Your task to perform on an android device: turn on location history Image 0: 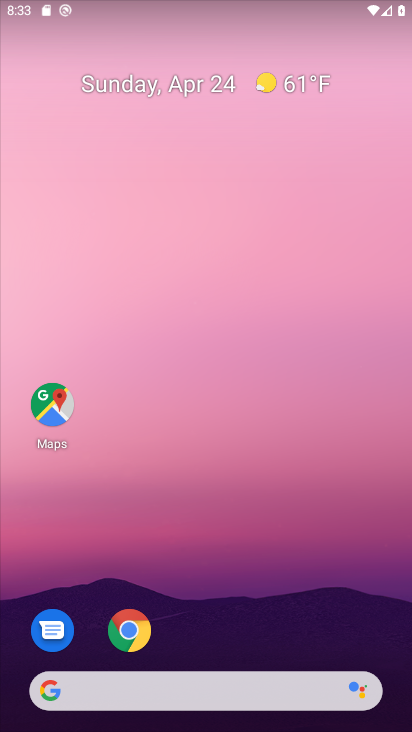
Step 0: drag from (348, 603) to (350, 98)
Your task to perform on an android device: turn on location history Image 1: 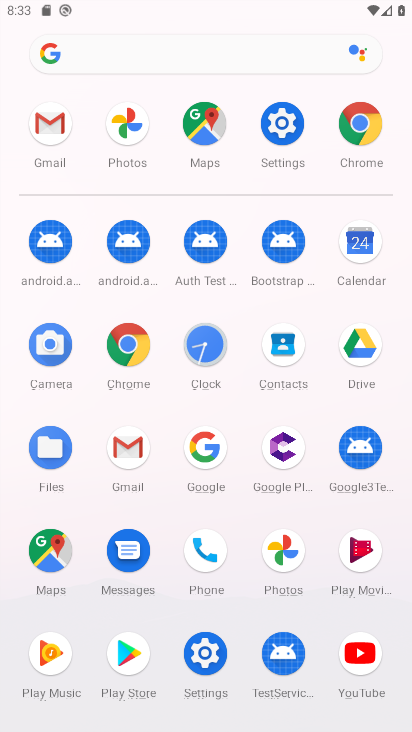
Step 1: click (282, 114)
Your task to perform on an android device: turn on location history Image 2: 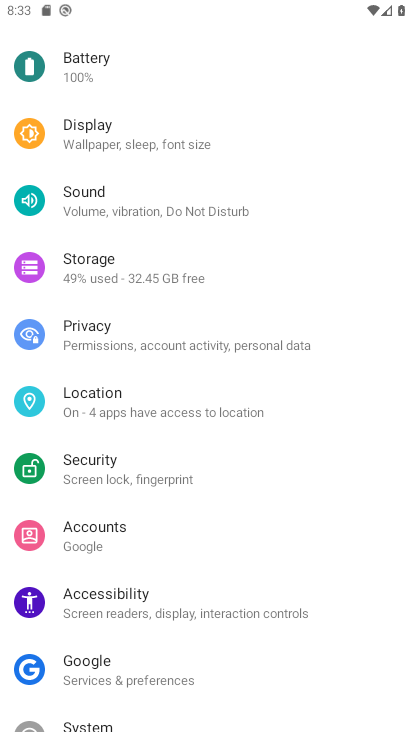
Step 2: drag from (337, 563) to (362, 391)
Your task to perform on an android device: turn on location history Image 3: 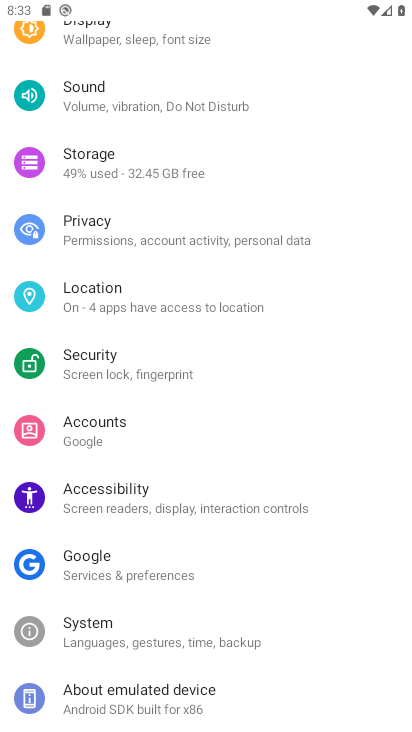
Step 3: drag from (347, 600) to (348, 386)
Your task to perform on an android device: turn on location history Image 4: 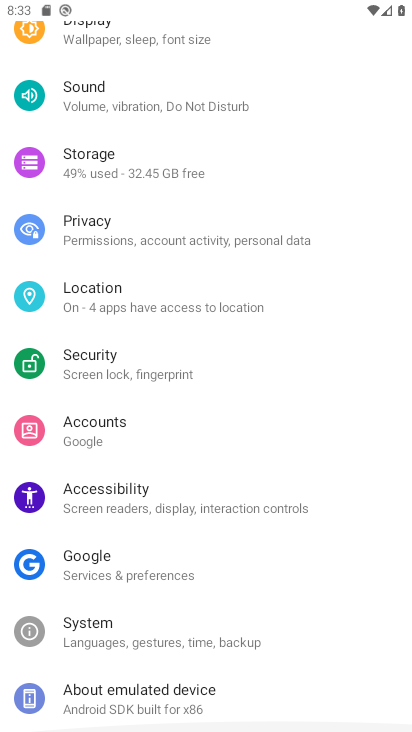
Step 4: drag from (345, 247) to (371, 432)
Your task to perform on an android device: turn on location history Image 5: 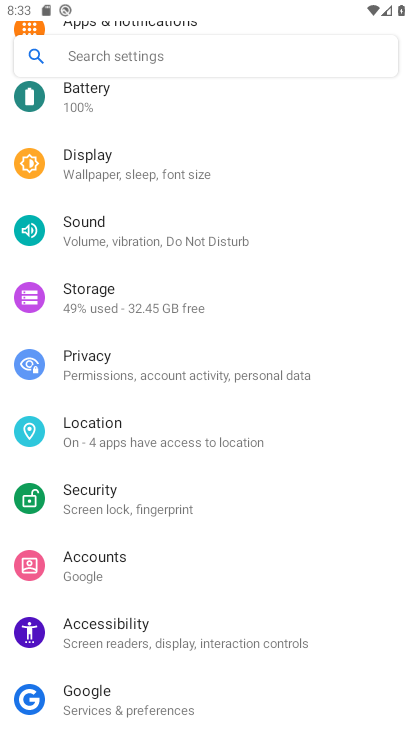
Step 5: drag from (358, 270) to (373, 435)
Your task to perform on an android device: turn on location history Image 6: 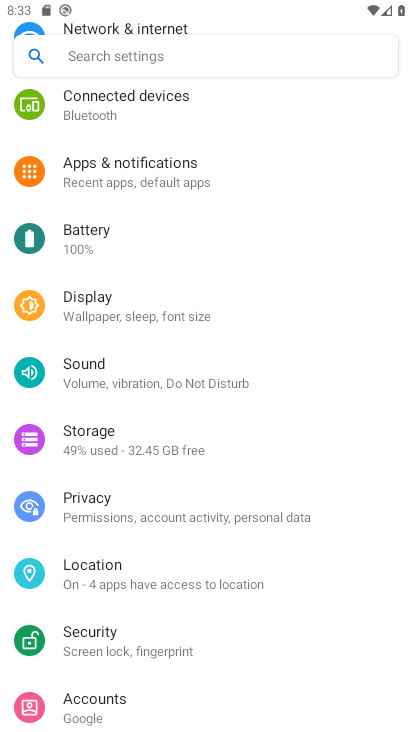
Step 6: drag from (361, 278) to (359, 462)
Your task to perform on an android device: turn on location history Image 7: 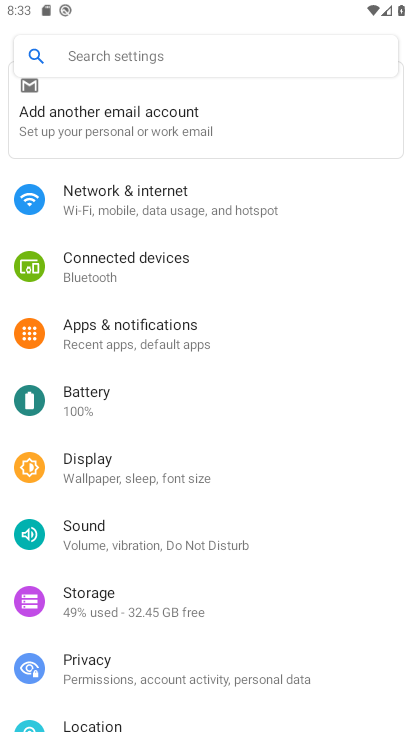
Step 7: drag from (365, 254) to (348, 463)
Your task to perform on an android device: turn on location history Image 8: 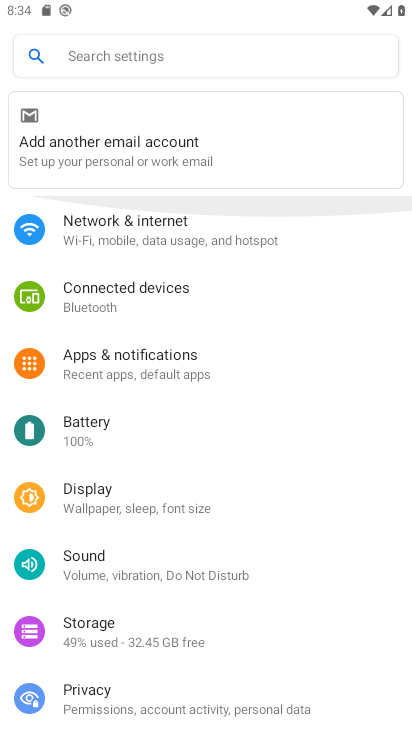
Step 8: drag from (300, 506) to (295, 356)
Your task to perform on an android device: turn on location history Image 9: 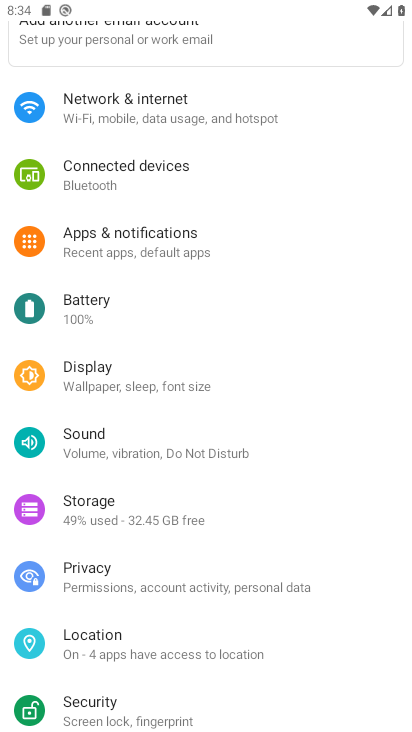
Step 9: drag from (340, 604) to (344, 412)
Your task to perform on an android device: turn on location history Image 10: 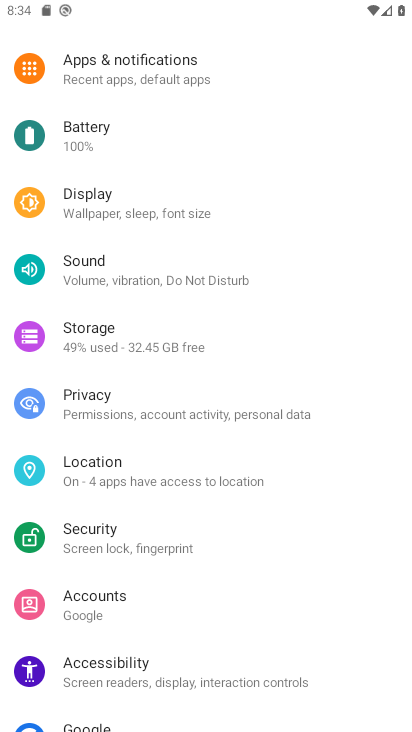
Step 10: drag from (327, 562) to (337, 358)
Your task to perform on an android device: turn on location history Image 11: 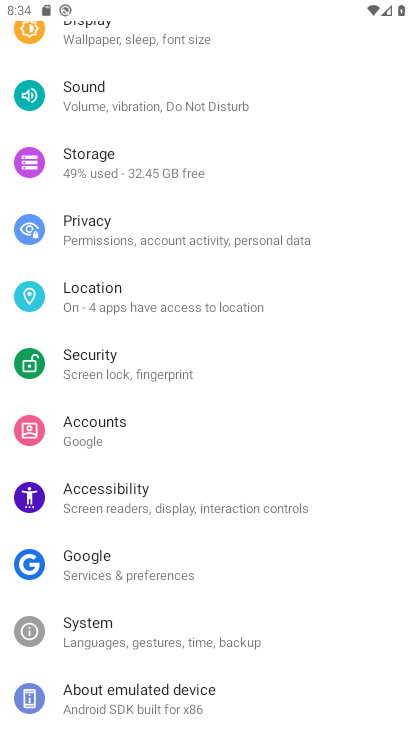
Step 11: click (216, 303)
Your task to perform on an android device: turn on location history Image 12: 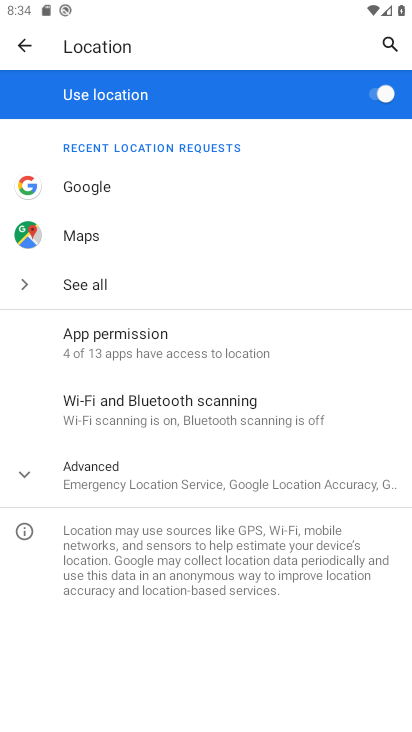
Step 12: click (295, 488)
Your task to perform on an android device: turn on location history Image 13: 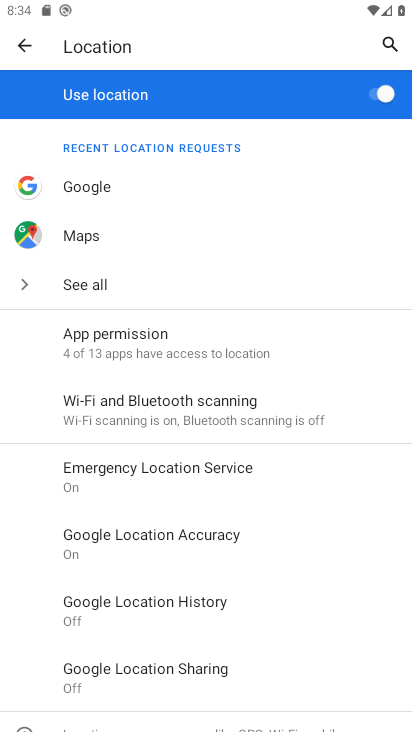
Step 13: drag from (335, 613) to (342, 420)
Your task to perform on an android device: turn on location history Image 14: 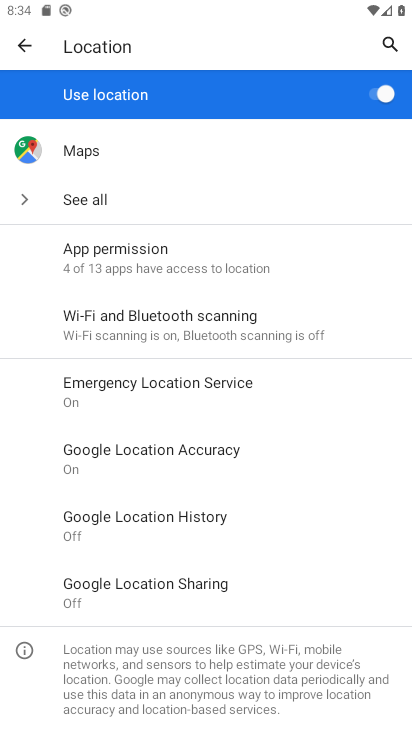
Step 14: click (175, 519)
Your task to perform on an android device: turn on location history Image 15: 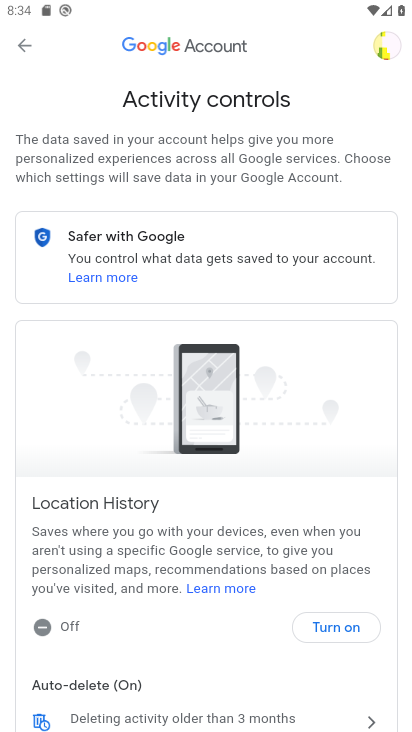
Step 15: click (354, 624)
Your task to perform on an android device: turn on location history Image 16: 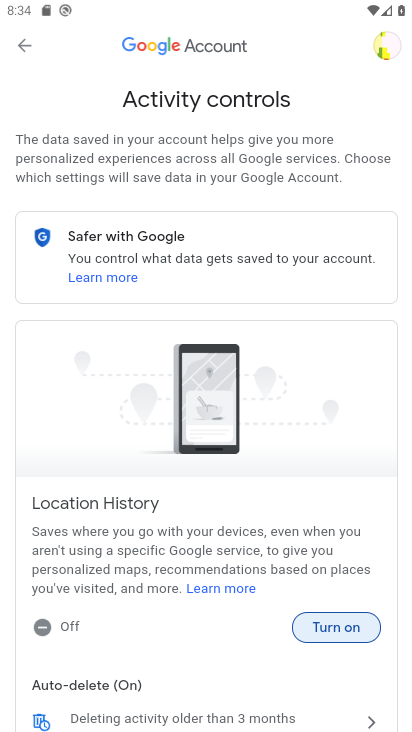
Step 16: click (346, 638)
Your task to perform on an android device: turn on location history Image 17: 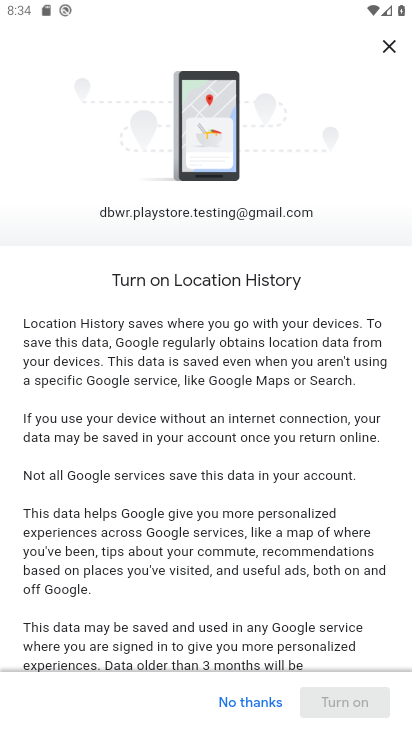
Step 17: drag from (312, 607) to (321, 446)
Your task to perform on an android device: turn on location history Image 18: 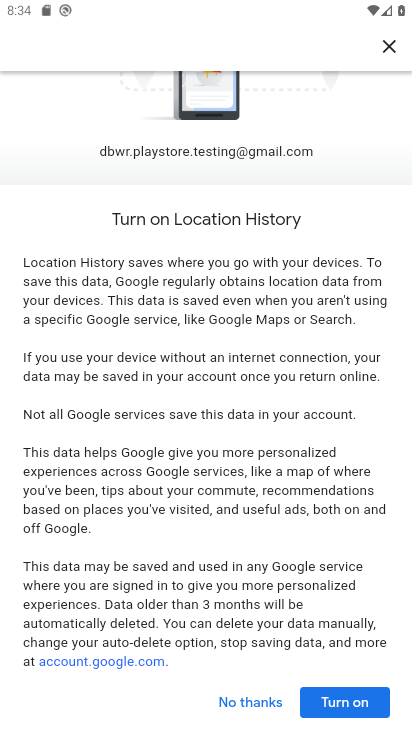
Step 18: click (361, 708)
Your task to perform on an android device: turn on location history Image 19: 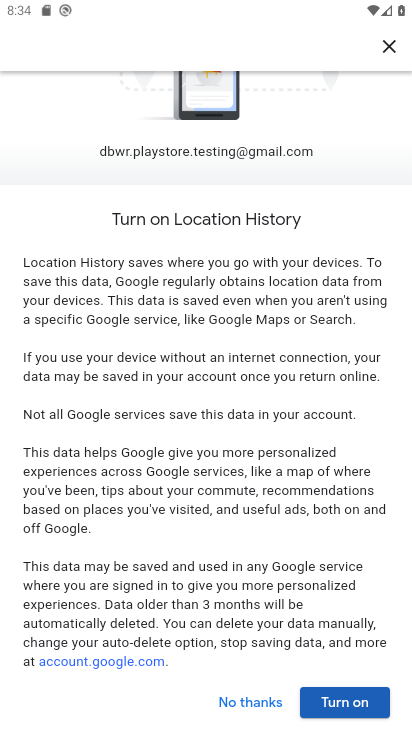
Step 19: click (380, 701)
Your task to perform on an android device: turn on location history Image 20: 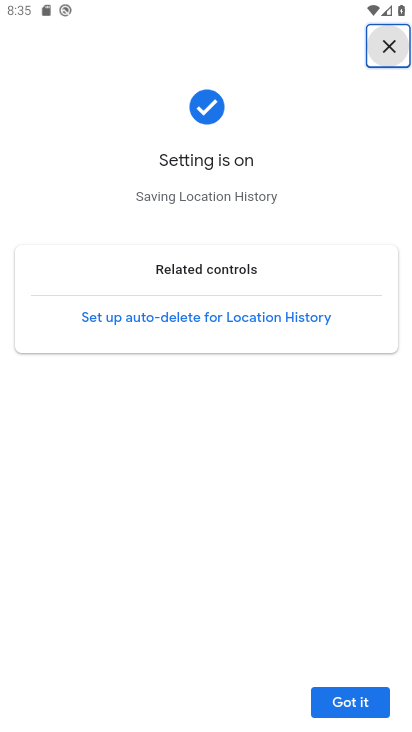
Step 20: task complete